Your task to perform on an android device: Go to Reddit.com Image 0: 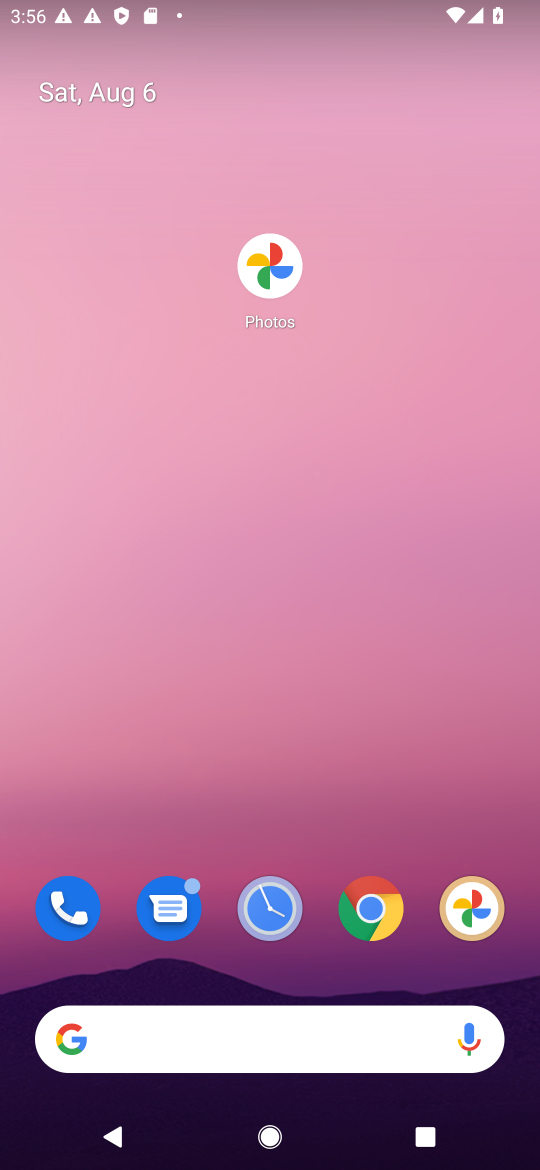
Step 0: click (381, 916)
Your task to perform on an android device: Go to Reddit.com Image 1: 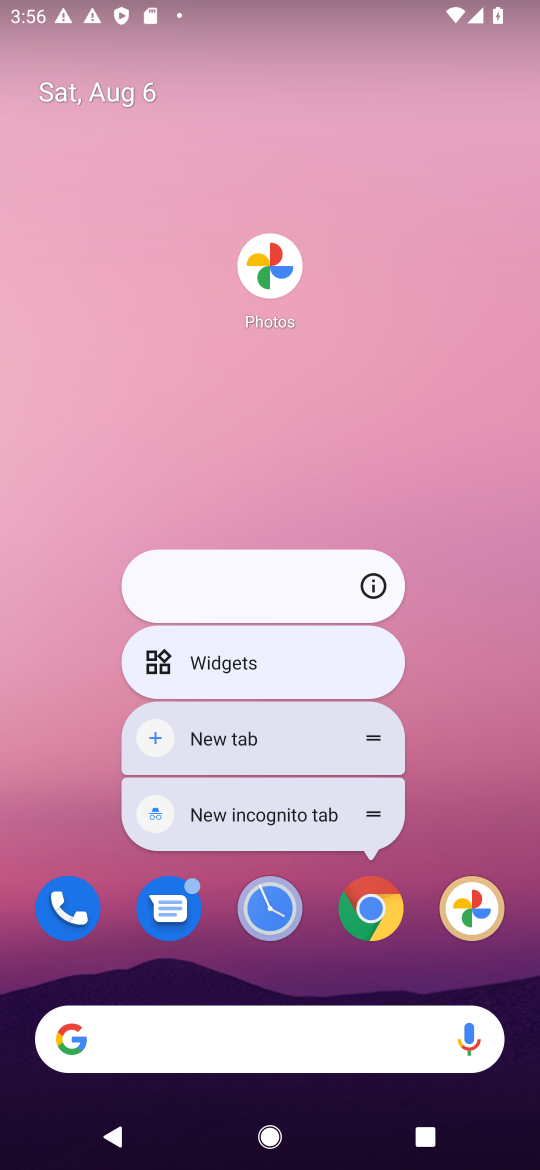
Step 1: click (400, 877)
Your task to perform on an android device: Go to Reddit.com Image 2: 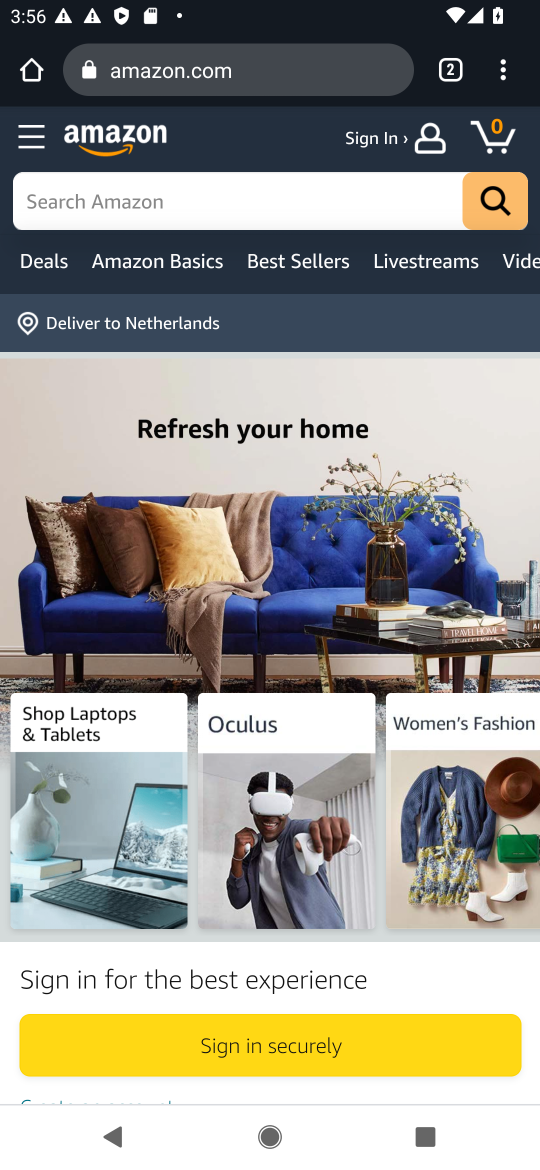
Step 2: click (268, 70)
Your task to perform on an android device: Go to Reddit.com Image 3: 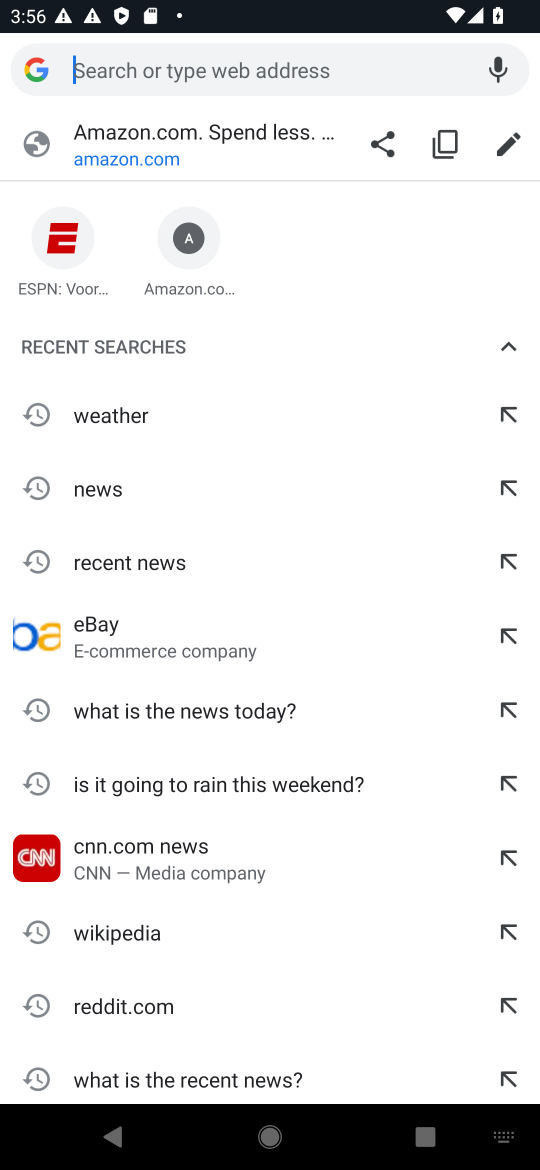
Step 3: type "Reddit.com"
Your task to perform on an android device: Go to Reddit.com Image 4: 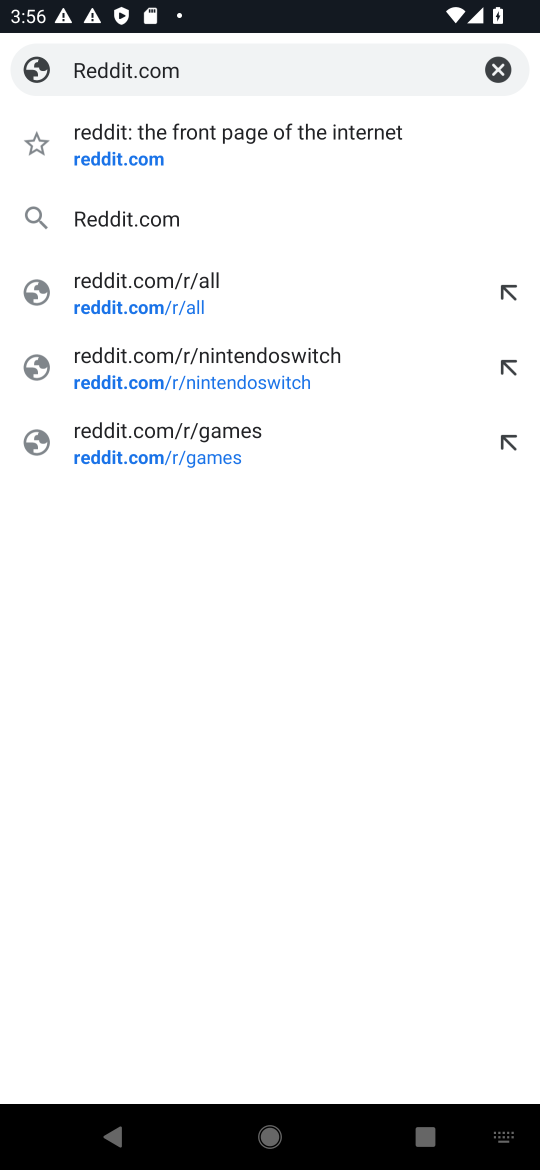
Step 4: click (180, 151)
Your task to perform on an android device: Go to Reddit.com Image 5: 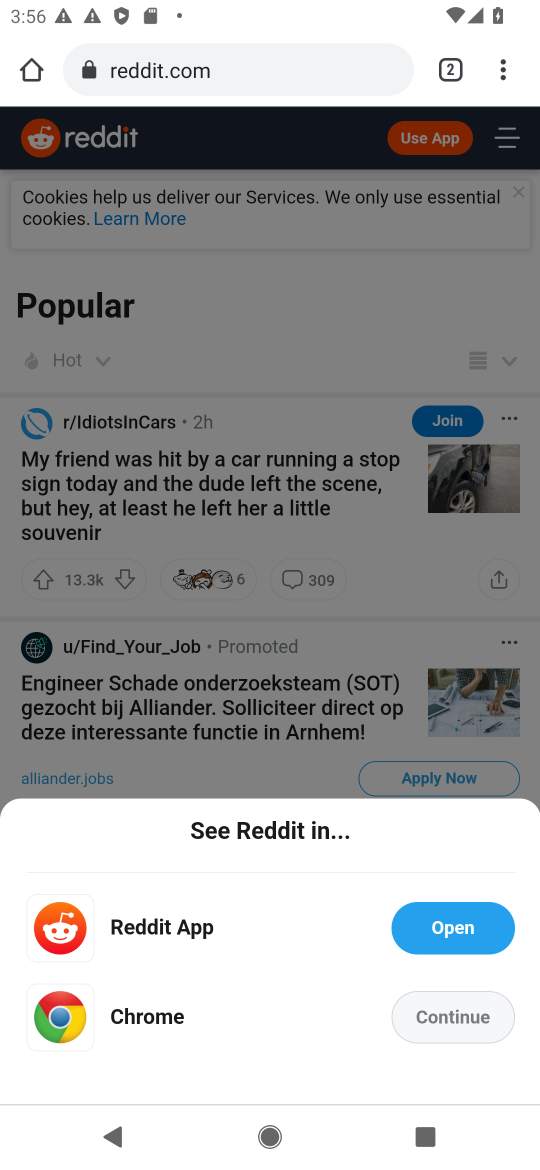
Step 5: click (444, 1003)
Your task to perform on an android device: Go to Reddit.com Image 6: 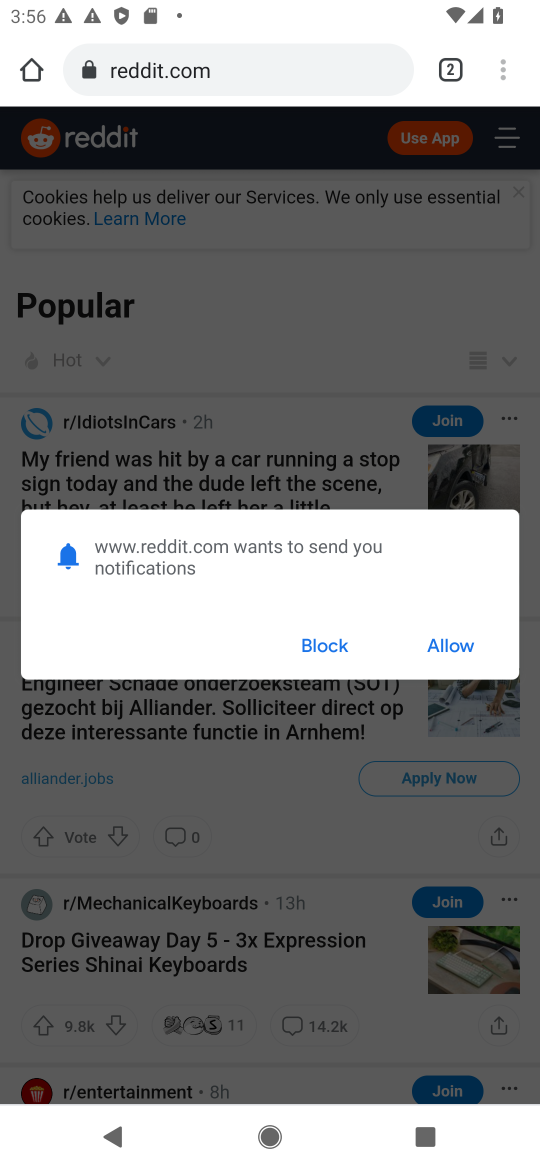
Step 6: task complete